Your task to perform on an android device: Search for seafood restaurants on Google Maps Image 0: 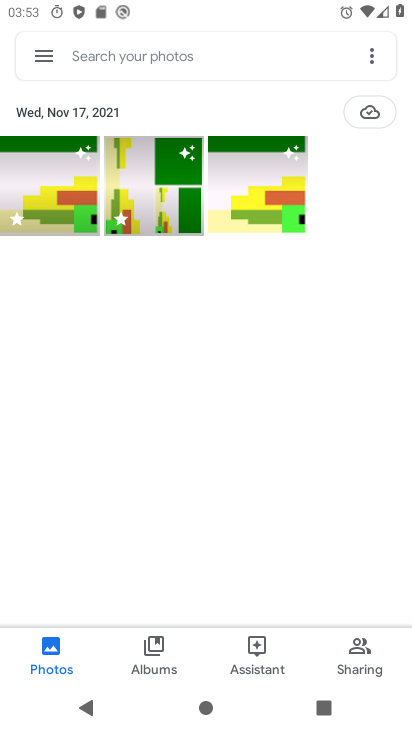
Step 0: press home button
Your task to perform on an android device: Search for seafood restaurants on Google Maps Image 1: 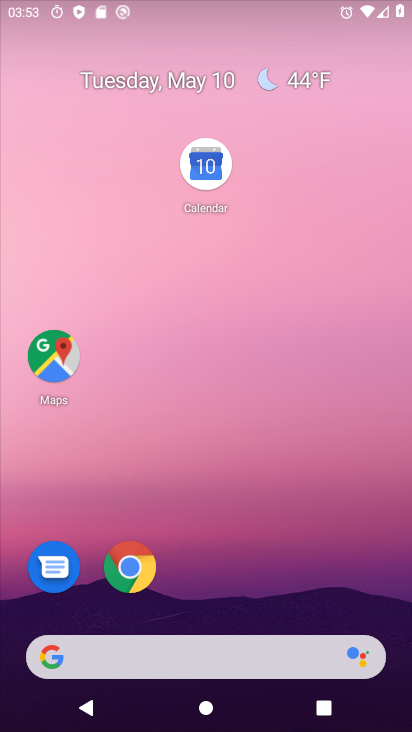
Step 1: drag from (241, 593) to (258, 97)
Your task to perform on an android device: Search for seafood restaurants on Google Maps Image 2: 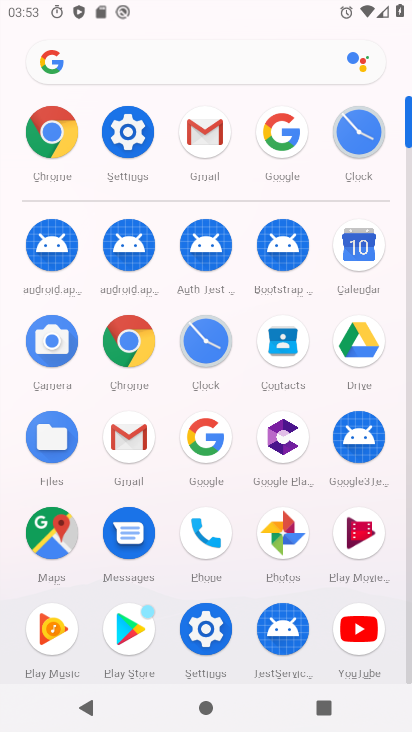
Step 2: click (46, 534)
Your task to perform on an android device: Search for seafood restaurants on Google Maps Image 3: 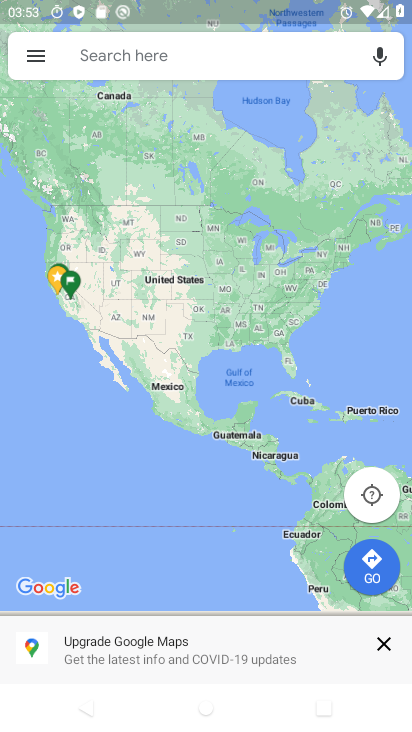
Step 3: click (198, 46)
Your task to perform on an android device: Search for seafood restaurants on Google Maps Image 4: 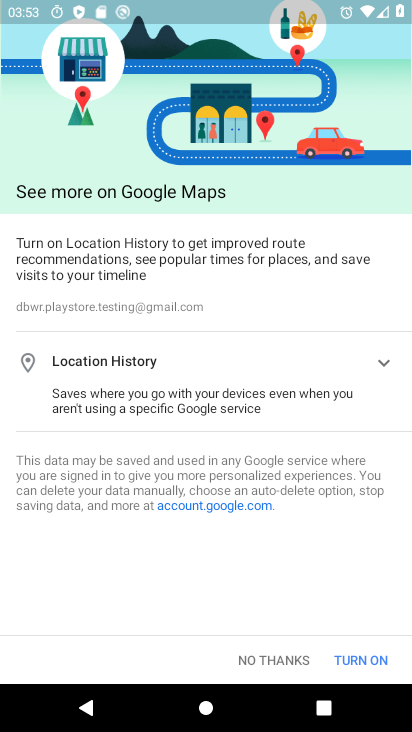
Step 4: click (282, 663)
Your task to perform on an android device: Search for seafood restaurants on Google Maps Image 5: 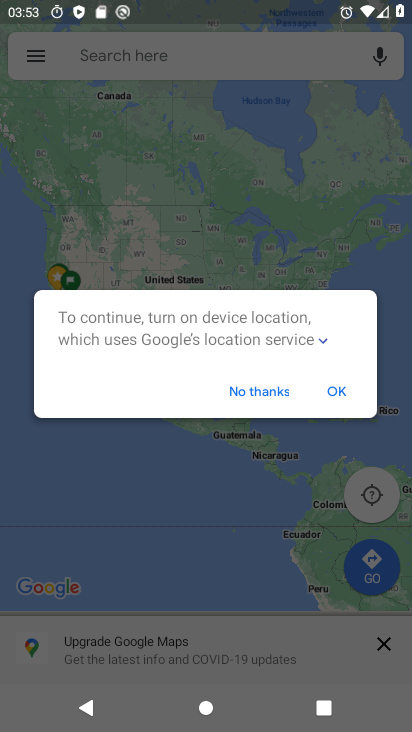
Step 5: click (340, 396)
Your task to perform on an android device: Search for seafood restaurants on Google Maps Image 6: 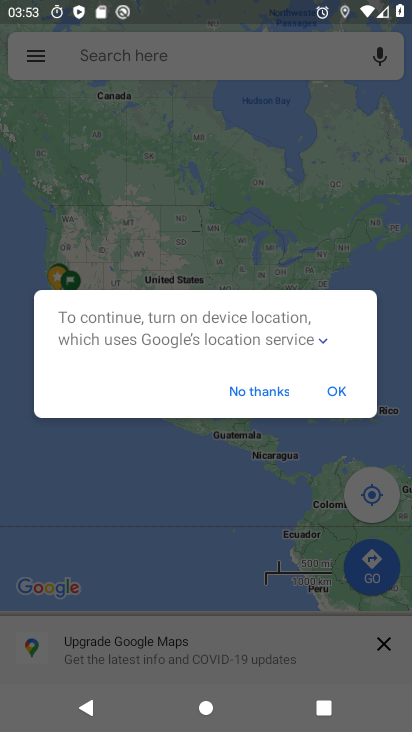
Step 6: click (324, 387)
Your task to perform on an android device: Search for seafood restaurants on Google Maps Image 7: 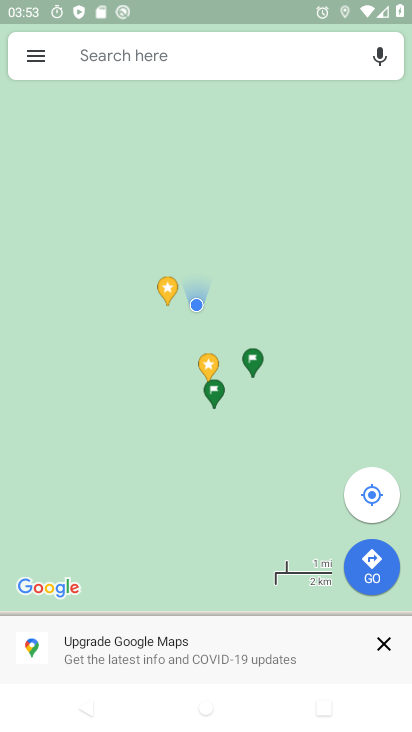
Step 7: click (231, 55)
Your task to perform on an android device: Search for seafood restaurants on Google Maps Image 8: 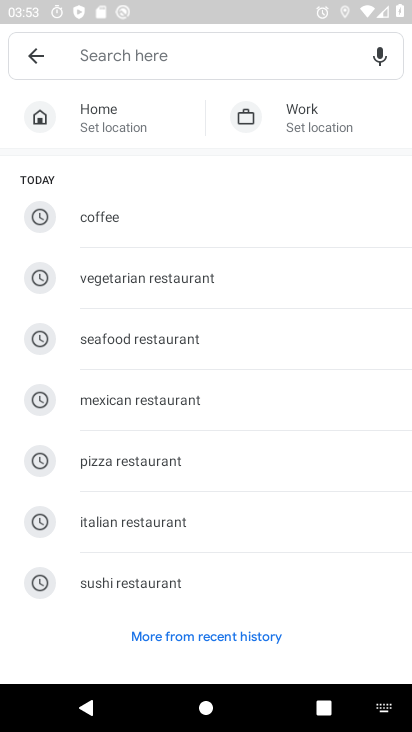
Step 8: click (150, 343)
Your task to perform on an android device: Search for seafood restaurants on Google Maps Image 9: 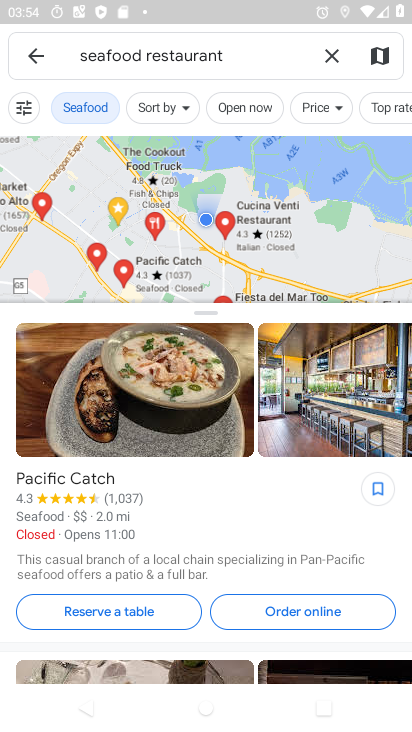
Step 9: task complete